Your task to perform on an android device: find which apps use the phone's location Image 0: 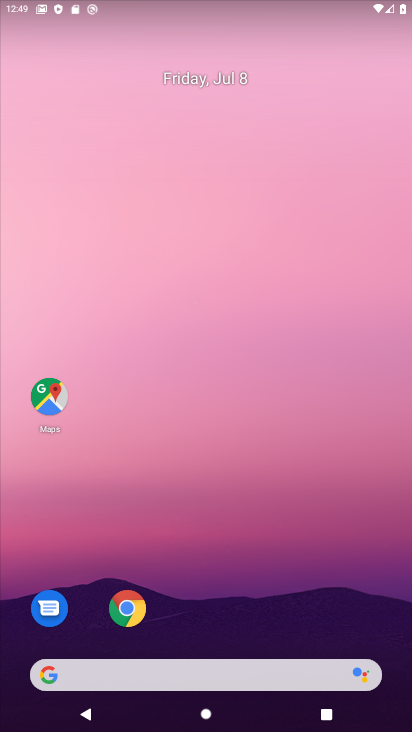
Step 0: drag from (376, 632) to (317, 134)
Your task to perform on an android device: find which apps use the phone's location Image 1: 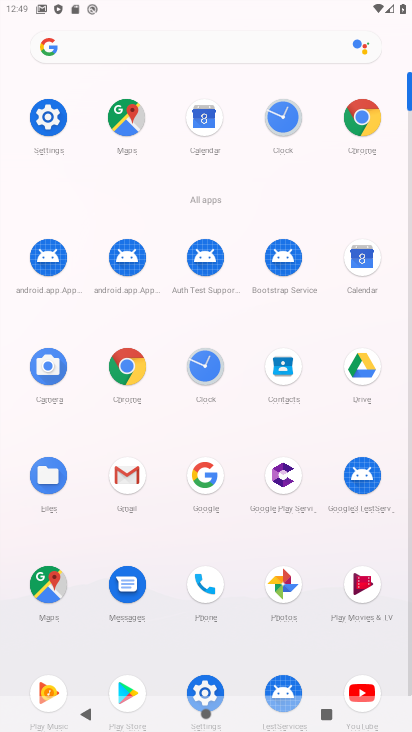
Step 1: click (198, 678)
Your task to perform on an android device: find which apps use the phone's location Image 2: 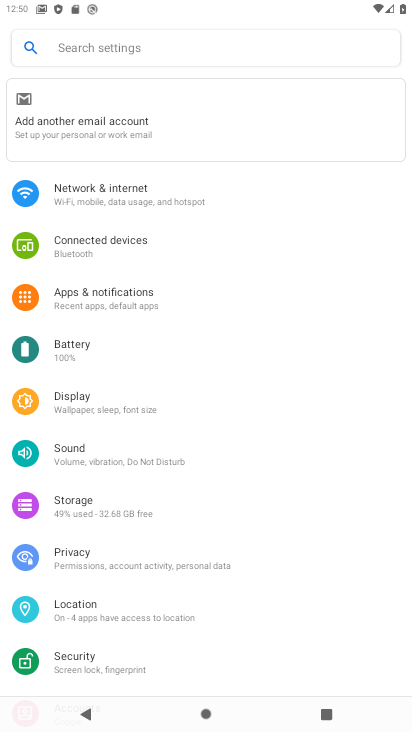
Step 2: click (101, 613)
Your task to perform on an android device: find which apps use the phone's location Image 3: 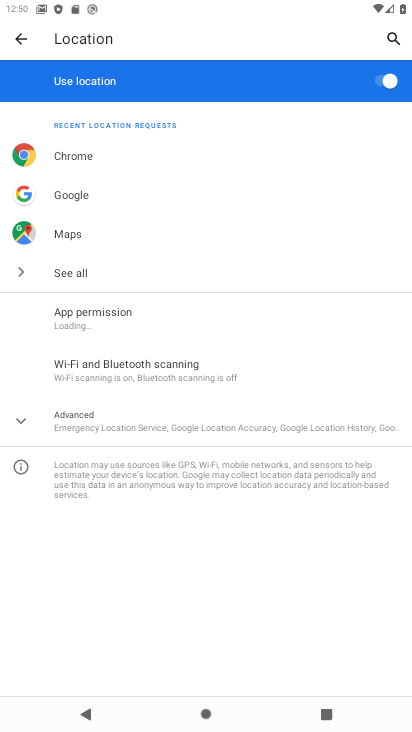
Step 3: click (63, 322)
Your task to perform on an android device: find which apps use the phone's location Image 4: 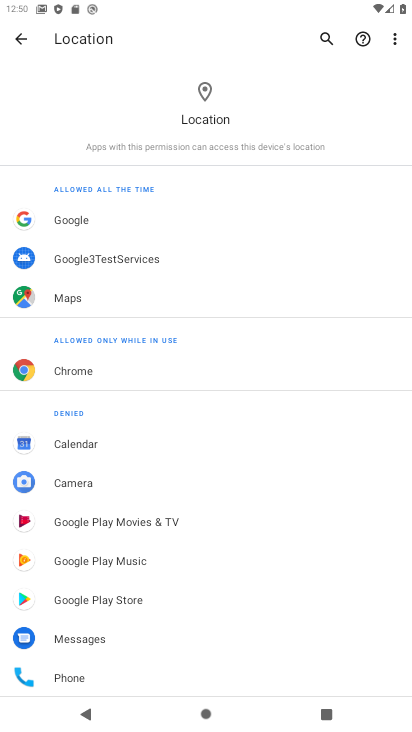
Step 4: drag from (225, 568) to (210, 183)
Your task to perform on an android device: find which apps use the phone's location Image 5: 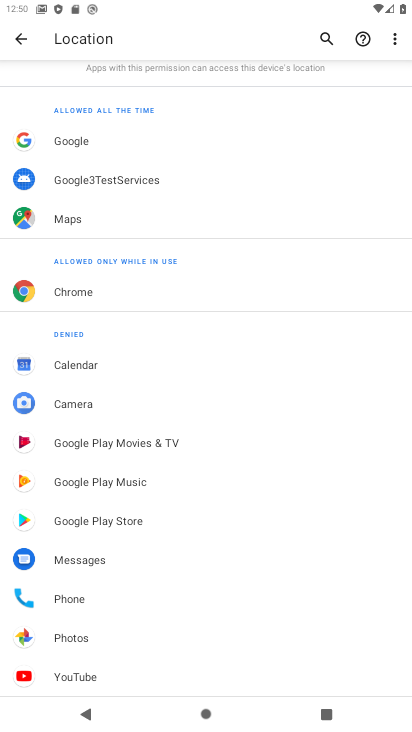
Step 5: click (62, 640)
Your task to perform on an android device: find which apps use the phone's location Image 6: 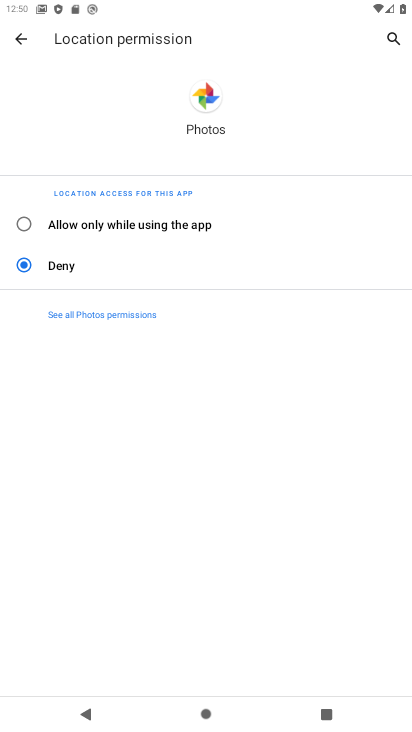
Step 6: task complete